Your task to perform on an android device: What's the news in Bangladesh? Image 0: 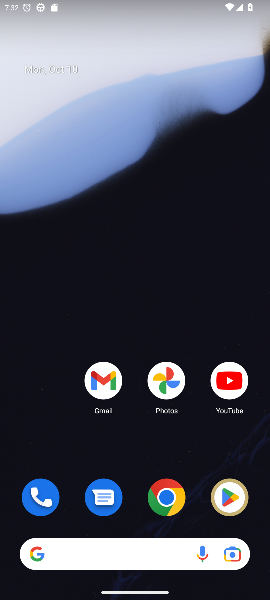
Step 0: drag from (62, 473) to (72, 121)
Your task to perform on an android device: What's the news in Bangladesh? Image 1: 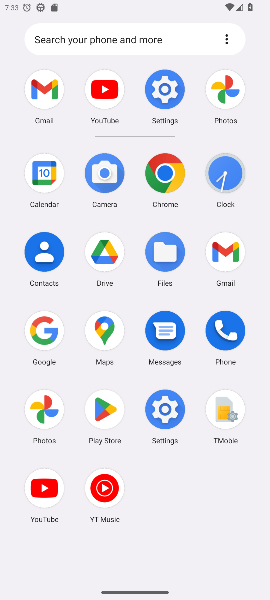
Step 1: click (33, 329)
Your task to perform on an android device: What's the news in Bangladesh? Image 2: 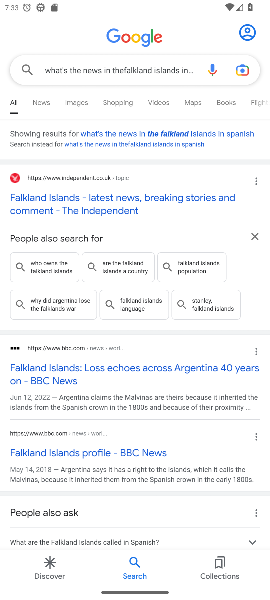
Step 2: click (145, 70)
Your task to perform on an android device: What's the news in Bangladesh? Image 3: 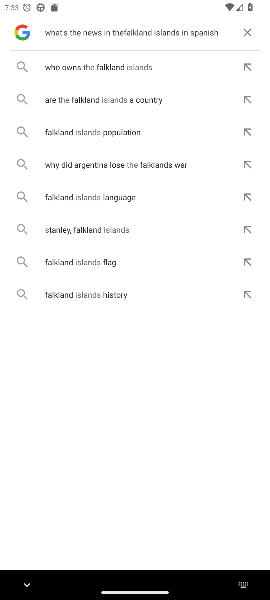
Step 3: click (242, 27)
Your task to perform on an android device: What's the news in Bangladesh? Image 4: 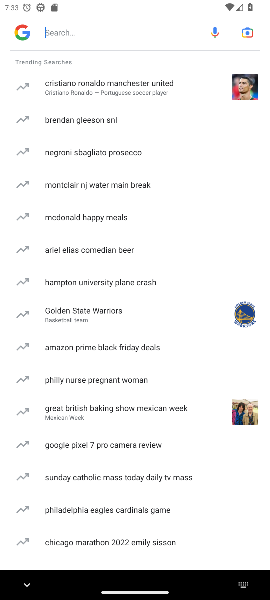
Step 4: click (99, 31)
Your task to perform on an android device: What's the news in Bangladesh? Image 5: 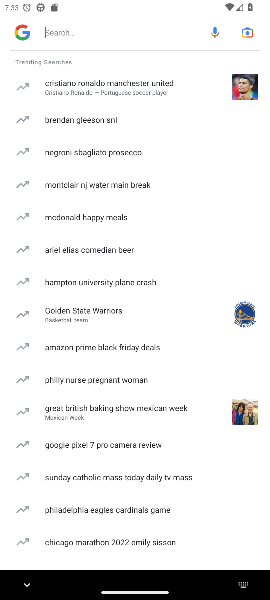
Step 5: type "What's the news in Bangladesh? "
Your task to perform on an android device: What's the news in Bangladesh? Image 6: 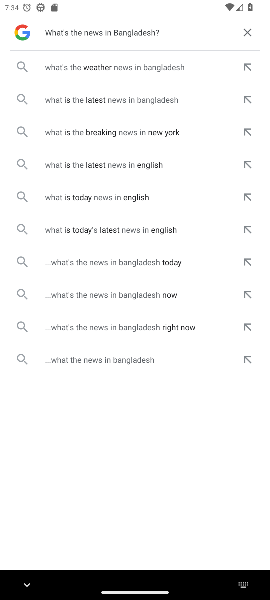
Step 6: click (93, 98)
Your task to perform on an android device: What's the news in Bangladesh? Image 7: 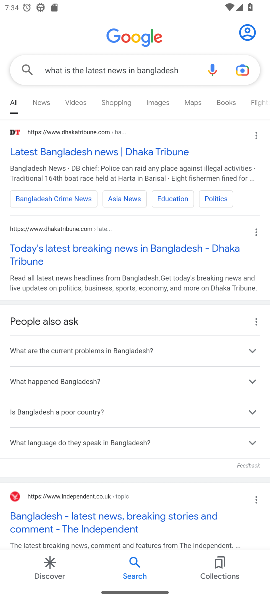
Step 7: click (71, 149)
Your task to perform on an android device: What's the news in Bangladesh? Image 8: 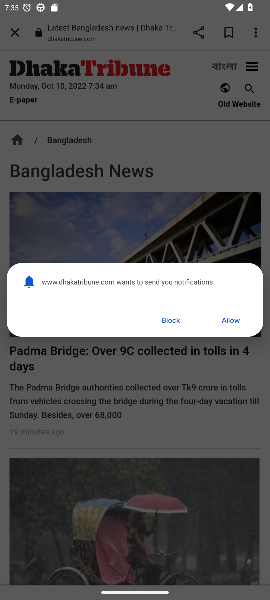
Step 8: click (236, 319)
Your task to perform on an android device: What's the news in Bangladesh? Image 9: 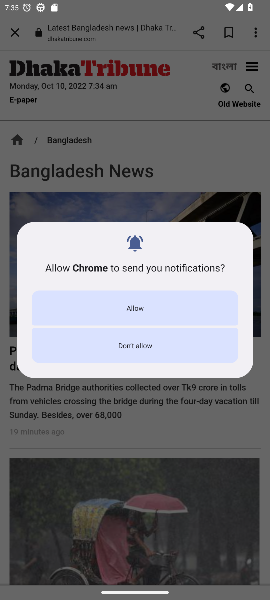
Step 9: click (138, 310)
Your task to perform on an android device: What's the news in Bangladesh? Image 10: 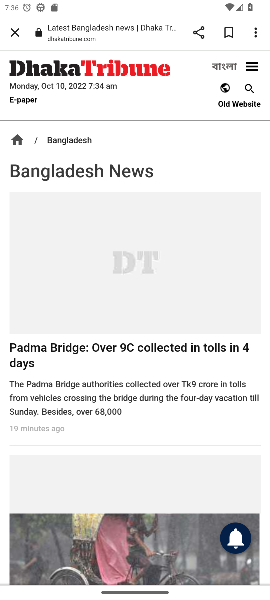
Step 10: task complete